Your task to perform on an android device: Search for vegetarian restaurants on Maps Image 0: 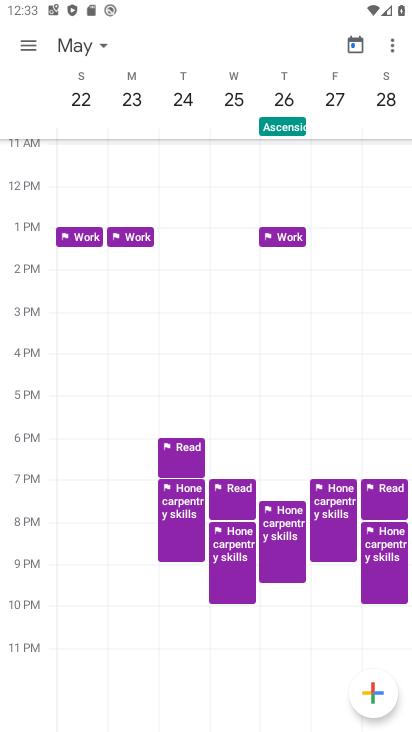
Step 0: press home button
Your task to perform on an android device: Search for vegetarian restaurants on Maps Image 1: 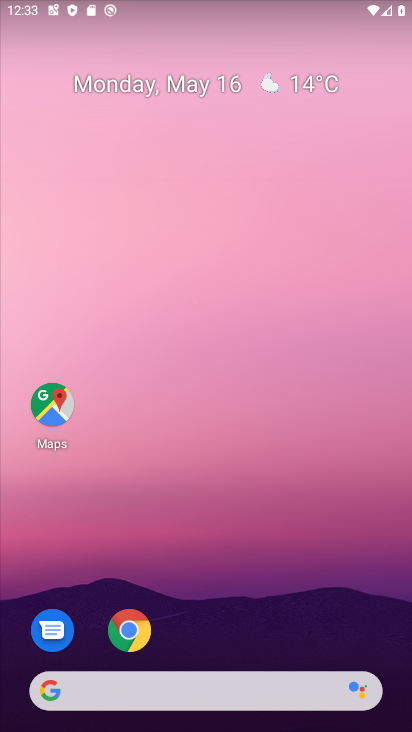
Step 1: click (49, 415)
Your task to perform on an android device: Search for vegetarian restaurants on Maps Image 2: 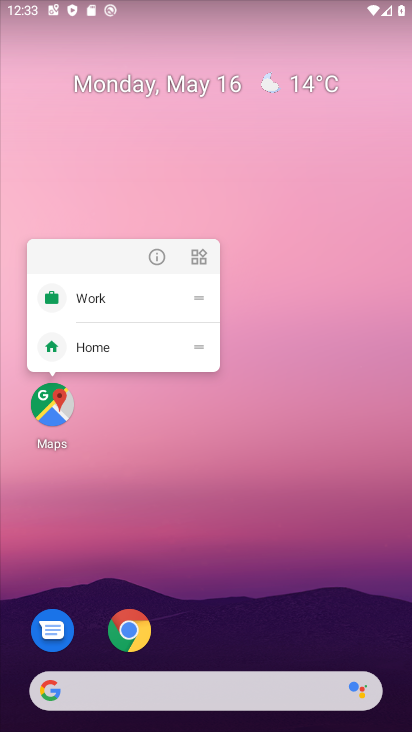
Step 2: click (47, 415)
Your task to perform on an android device: Search for vegetarian restaurants on Maps Image 3: 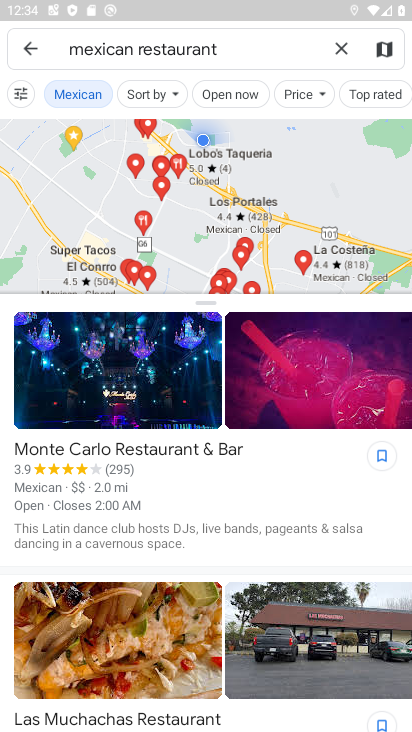
Step 3: click (342, 44)
Your task to perform on an android device: Search for vegetarian restaurants on Maps Image 4: 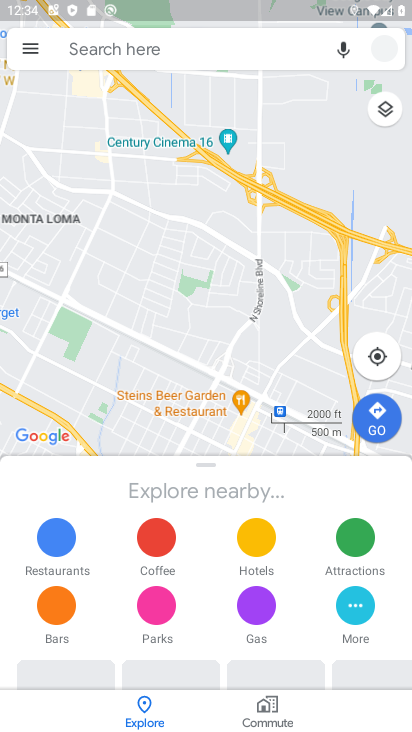
Step 4: click (253, 50)
Your task to perform on an android device: Search for vegetarian restaurants on Maps Image 5: 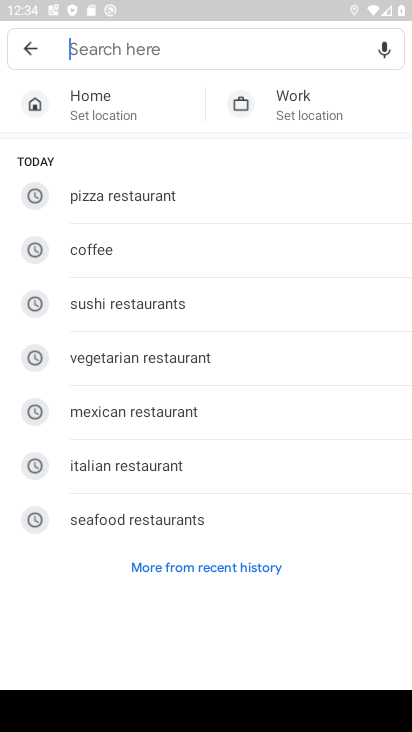
Step 5: click (123, 352)
Your task to perform on an android device: Search for vegetarian restaurants on Maps Image 6: 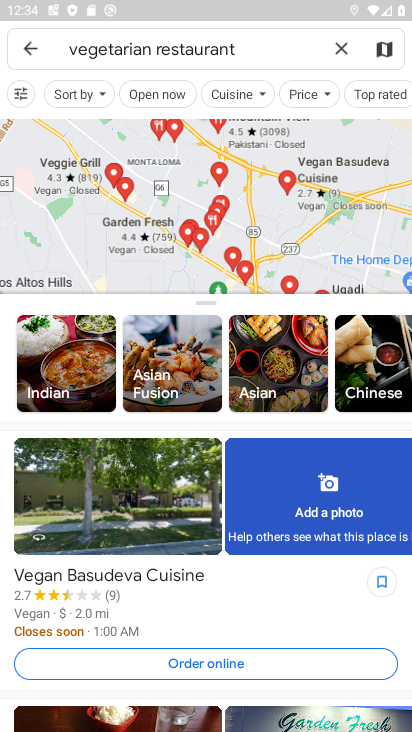
Step 6: task complete